Your task to perform on an android device: open app "Walmart Shopping & Grocery" Image 0: 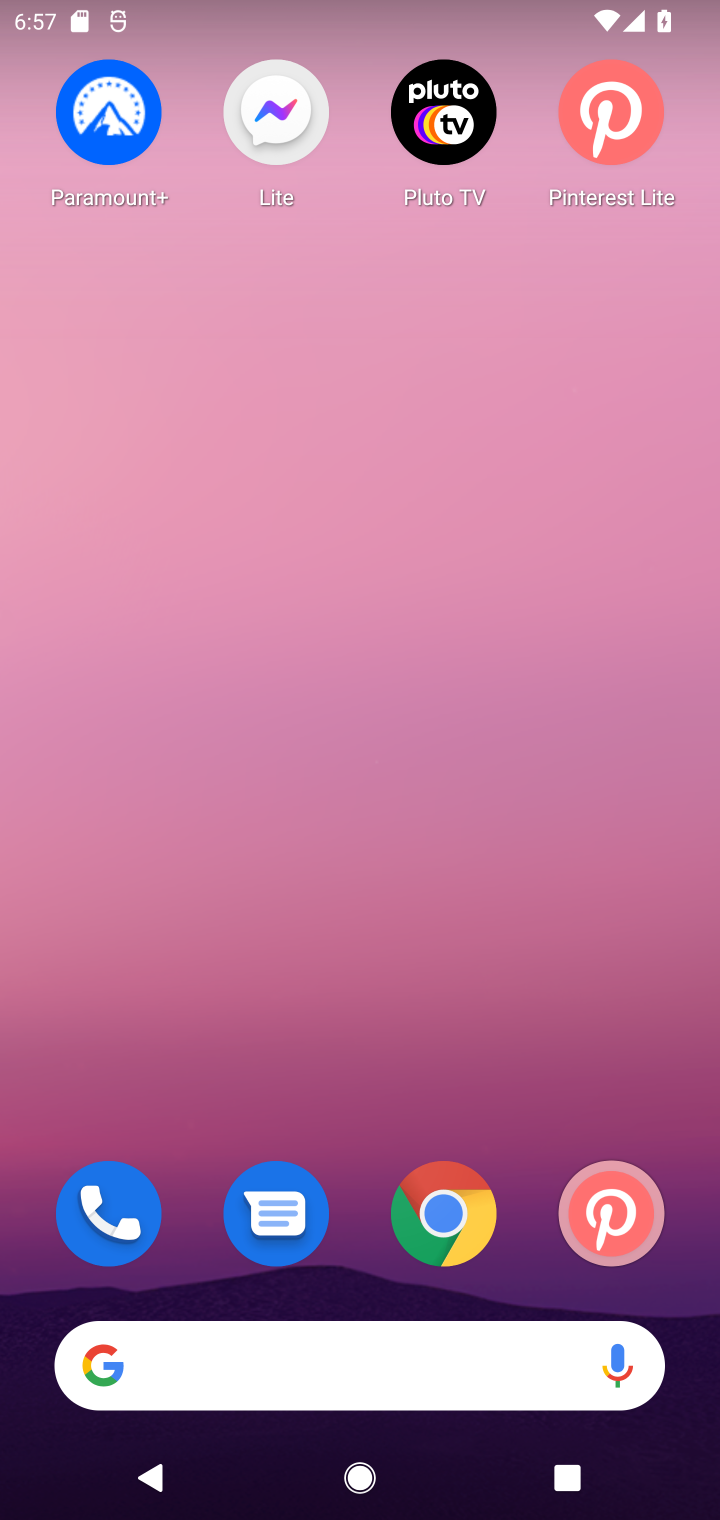
Step 0: drag from (326, 1182) to (300, 0)
Your task to perform on an android device: open app "Walmart Shopping & Grocery" Image 1: 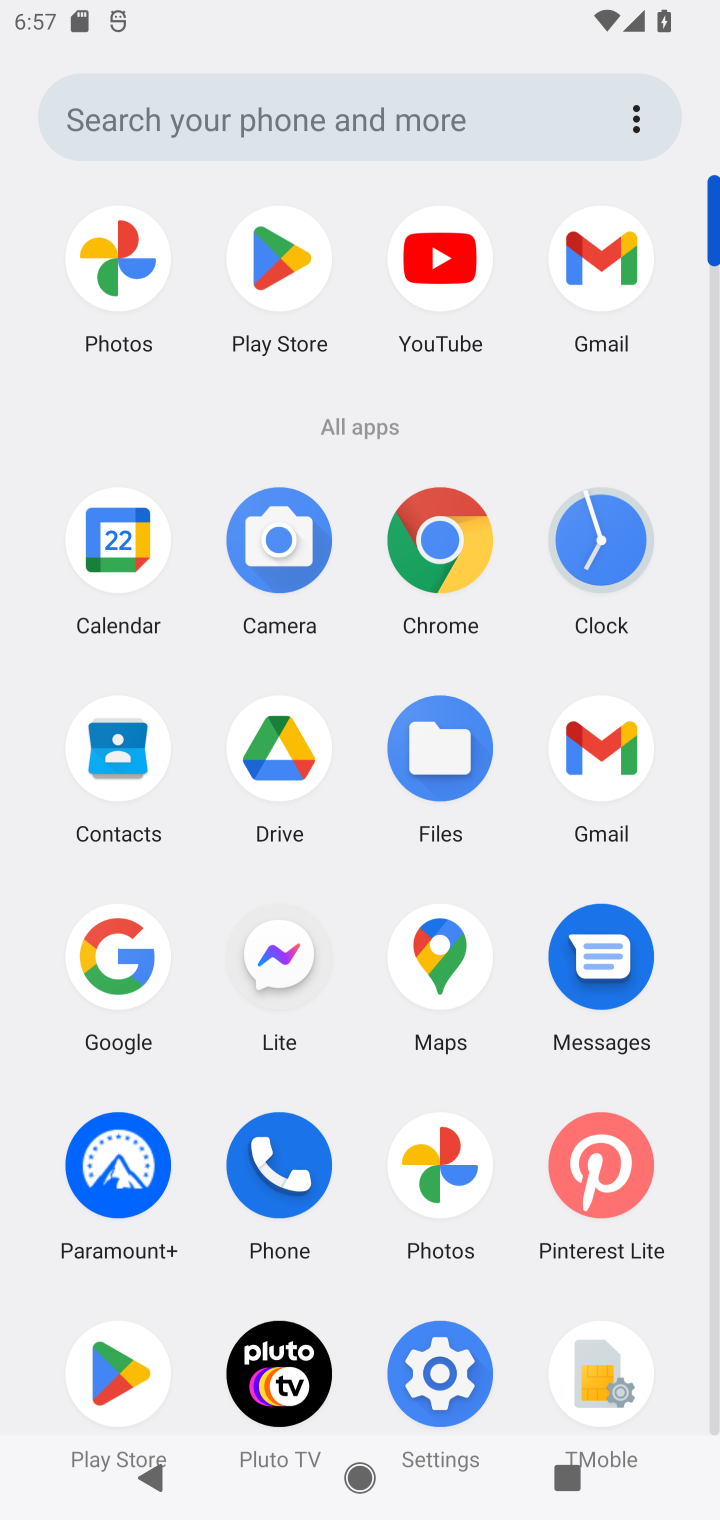
Step 1: click (285, 247)
Your task to perform on an android device: open app "Walmart Shopping & Grocery" Image 2: 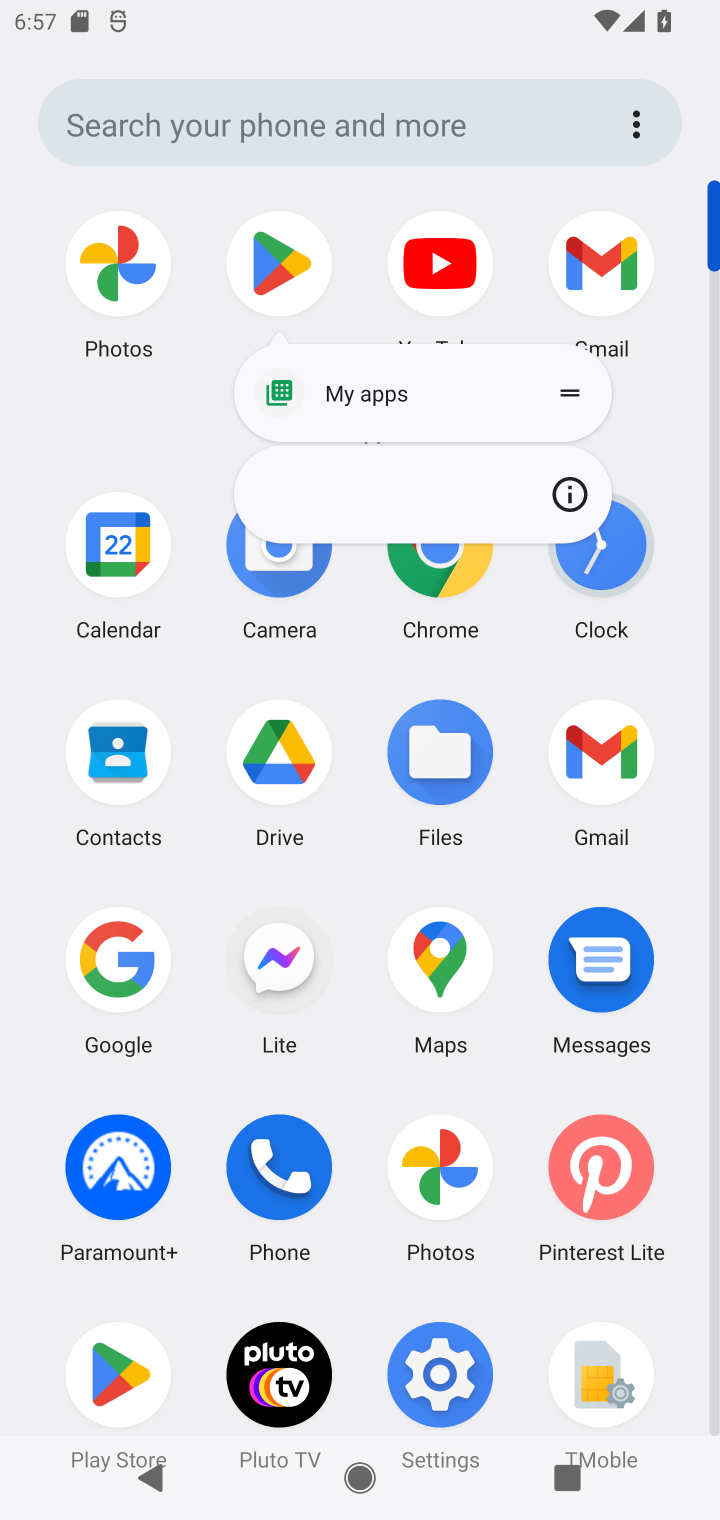
Step 2: click (104, 1361)
Your task to perform on an android device: open app "Walmart Shopping & Grocery" Image 3: 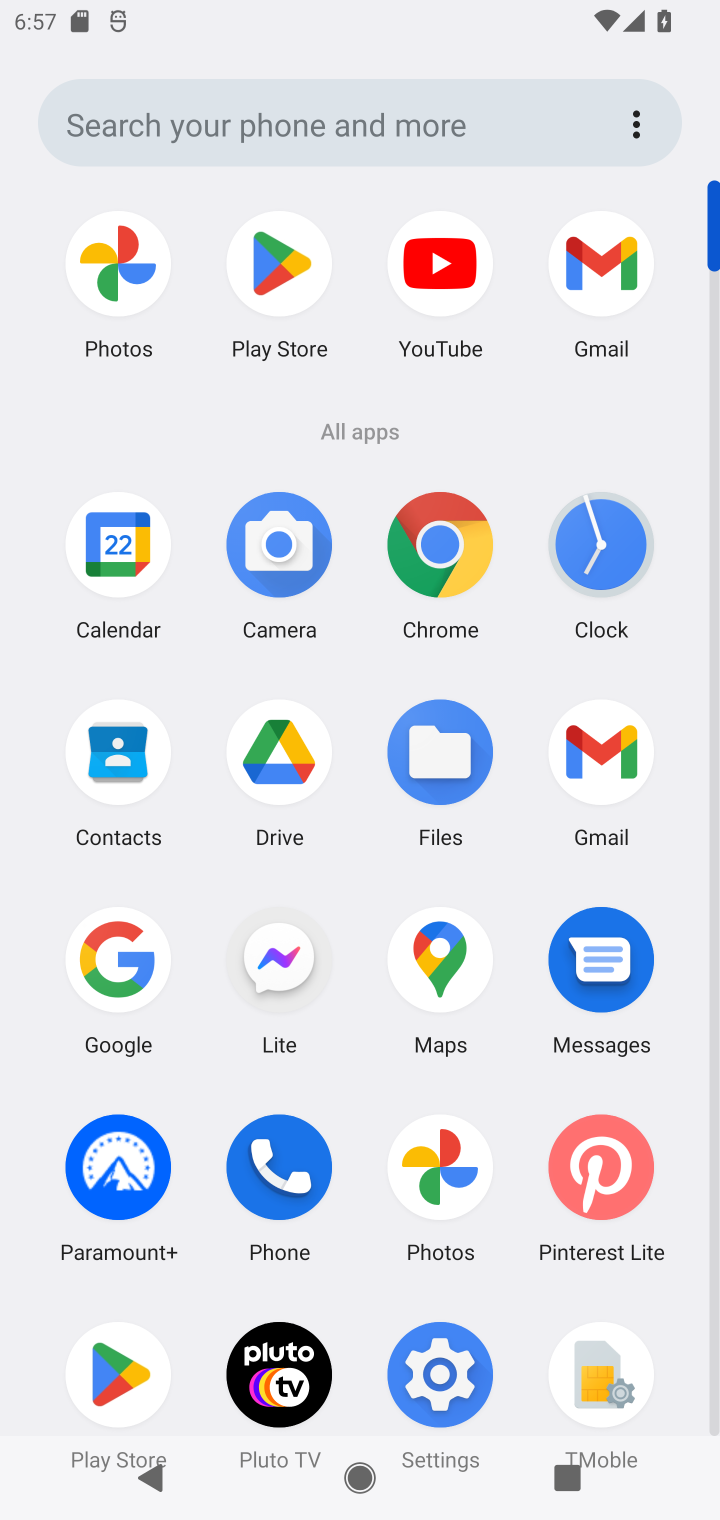
Step 3: click (111, 1362)
Your task to perform on an android device: open app "Walmart Shopping & Grocery" Image 4: 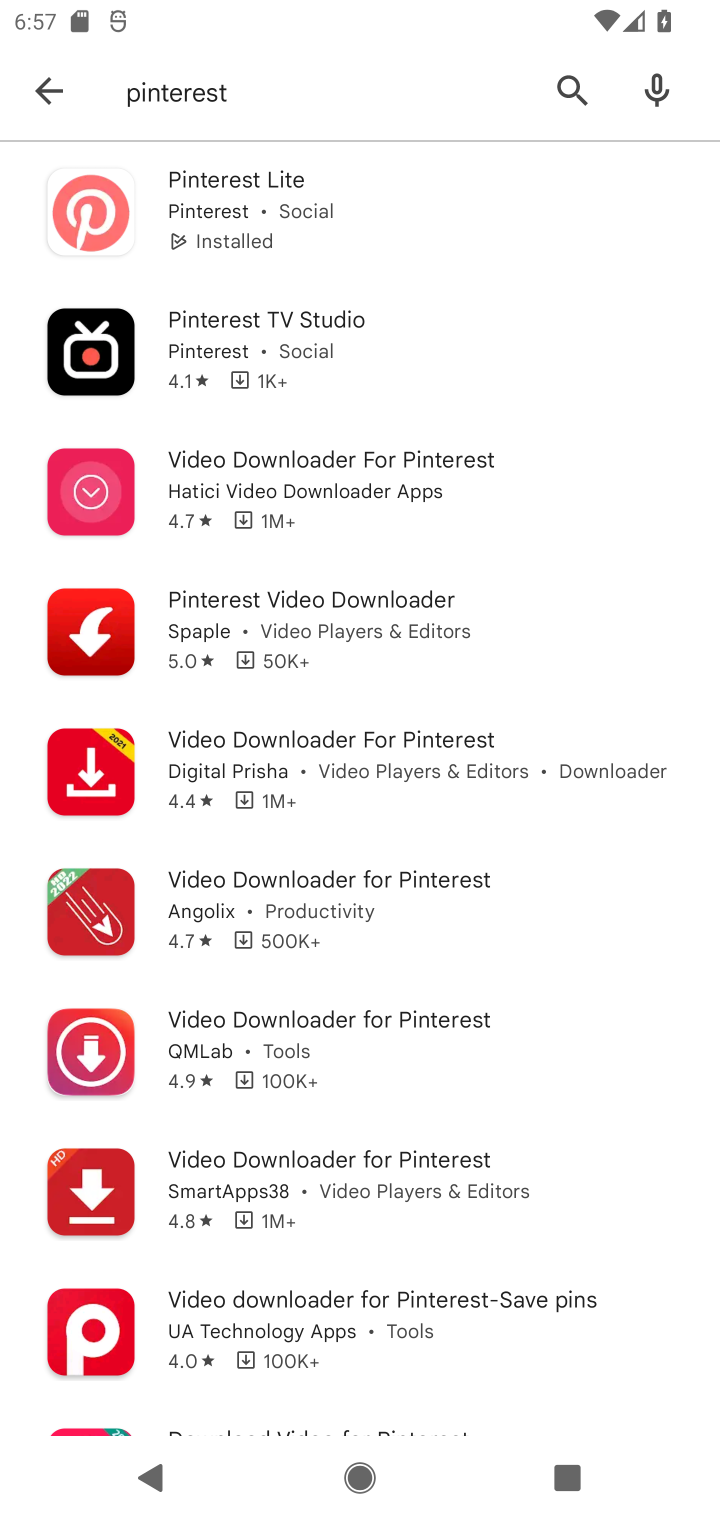
Step 4: click (572, 90)
Your task to perform on an android device: open app "Walmart Shopping & Grocery" Image 5: 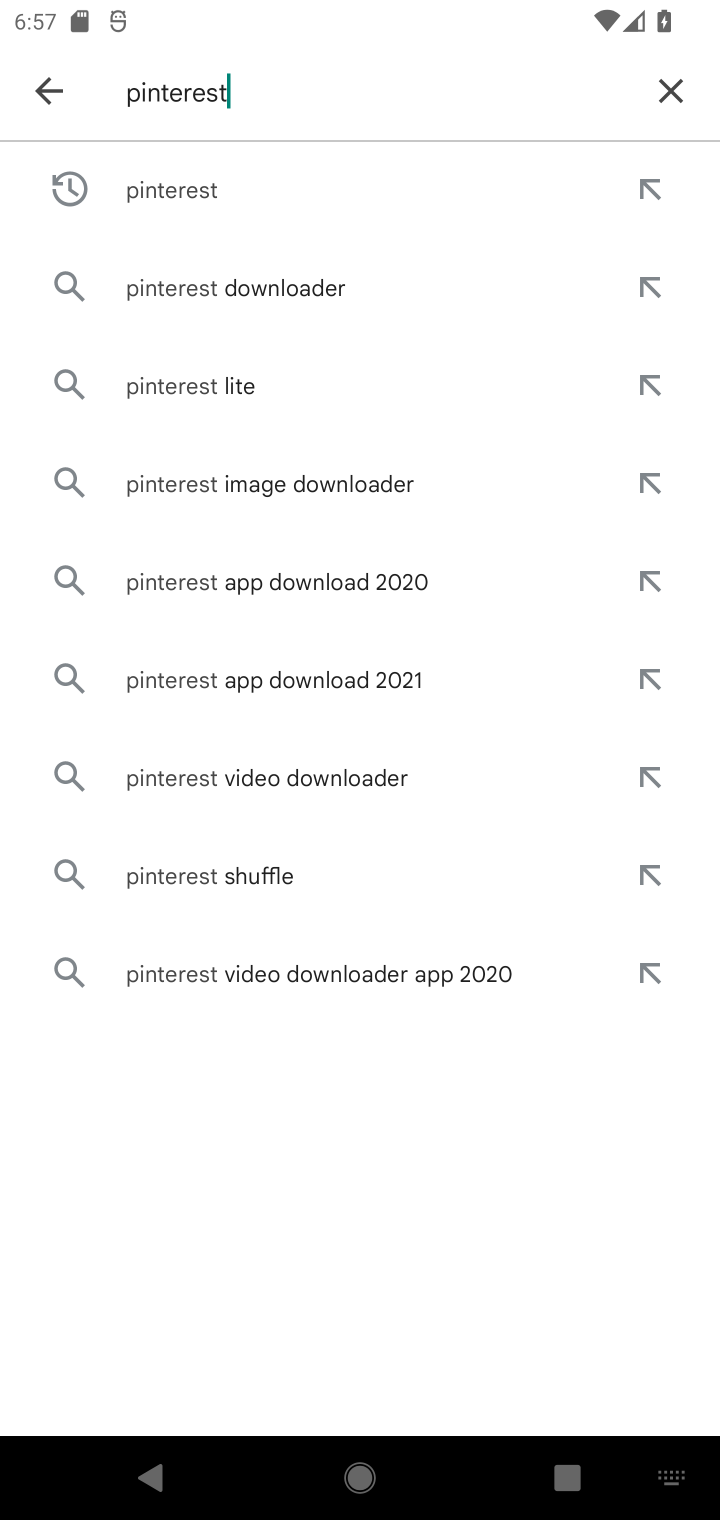
Step 5: click (680, 92)
Your task to perform on an android device: open app "Walmart Shopping & Grocery" Image 6: 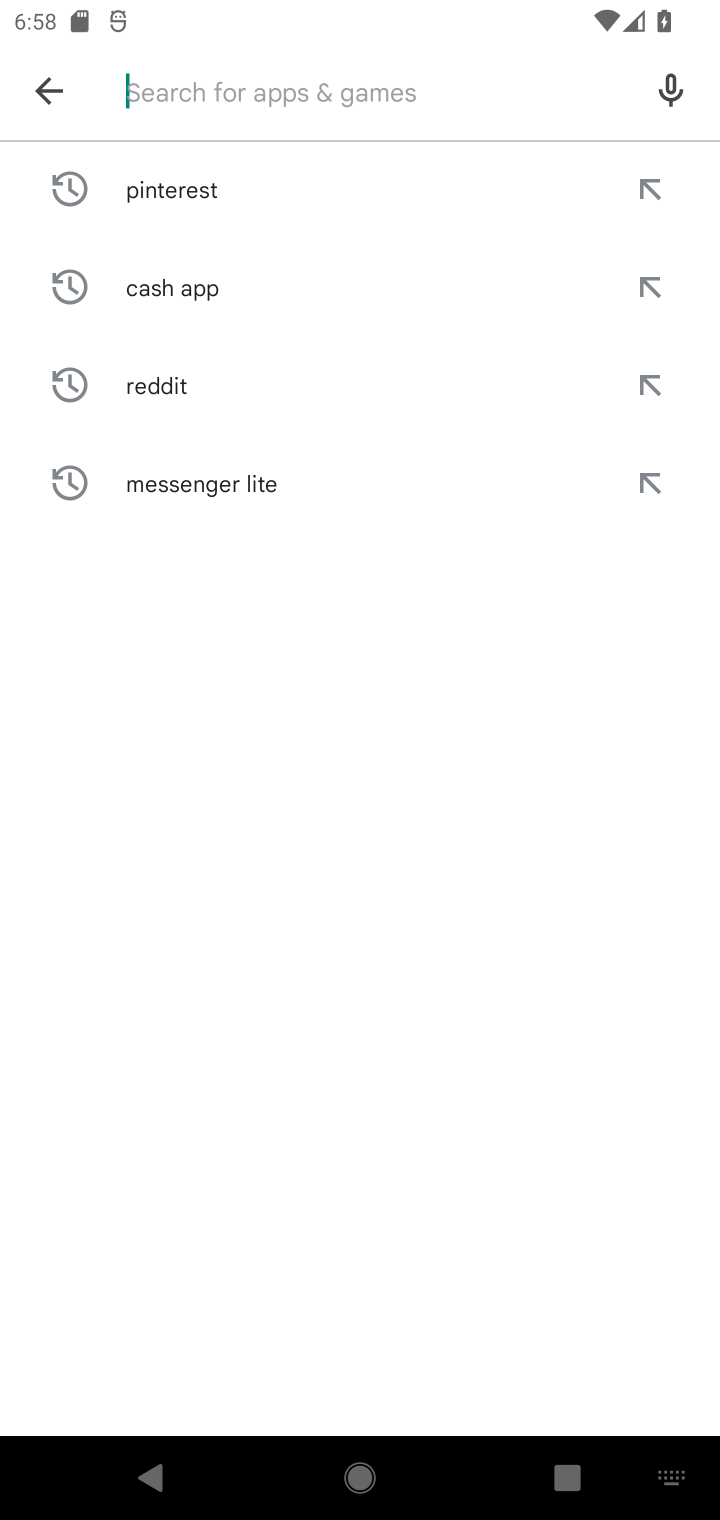
Step 6: type "Walmart Shopping & Grocery"
Your task to perform on an android device: open app "Walmart Shopping & Grocery" Image 7: 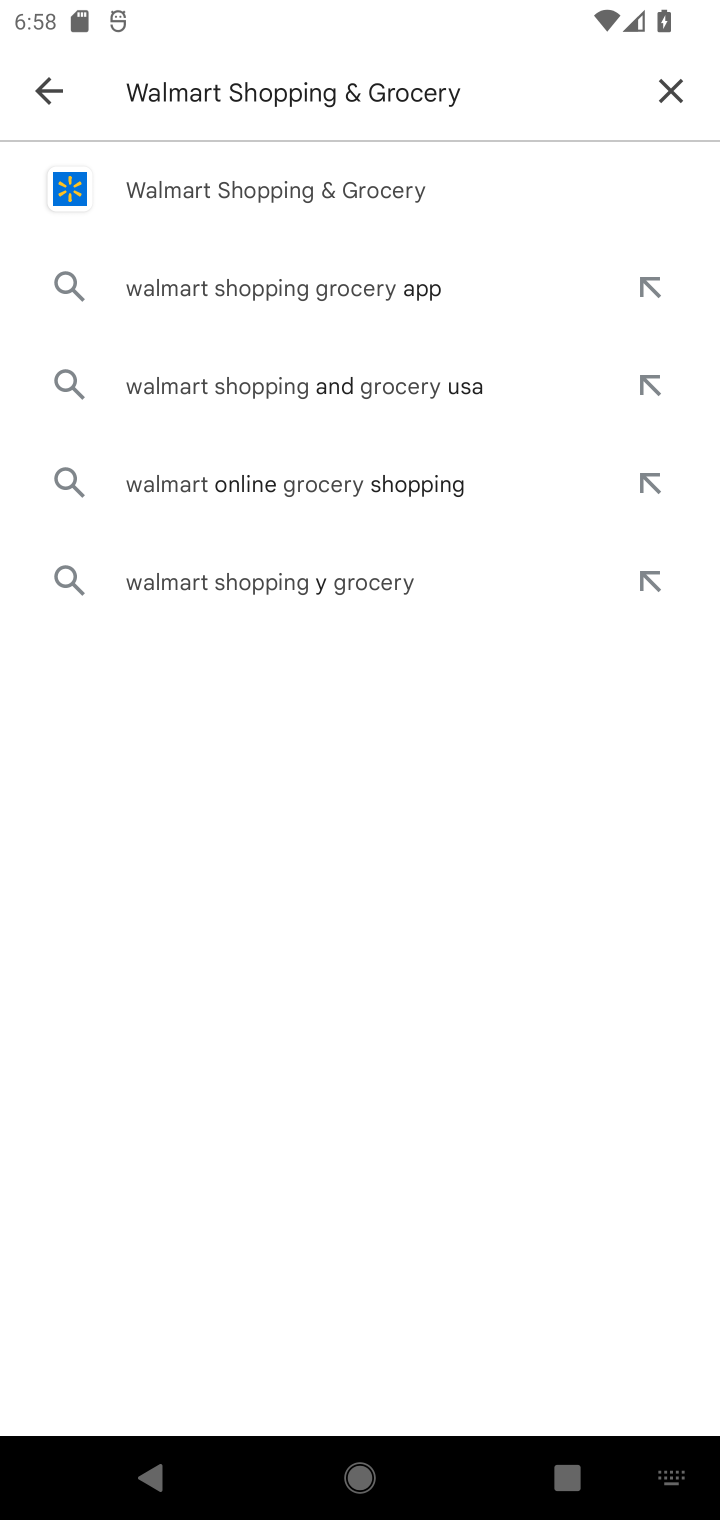
Step 7: click (143, 201)
Your task to perform on an android device: open app "Walmart Shopping & Grocery" Image 8: 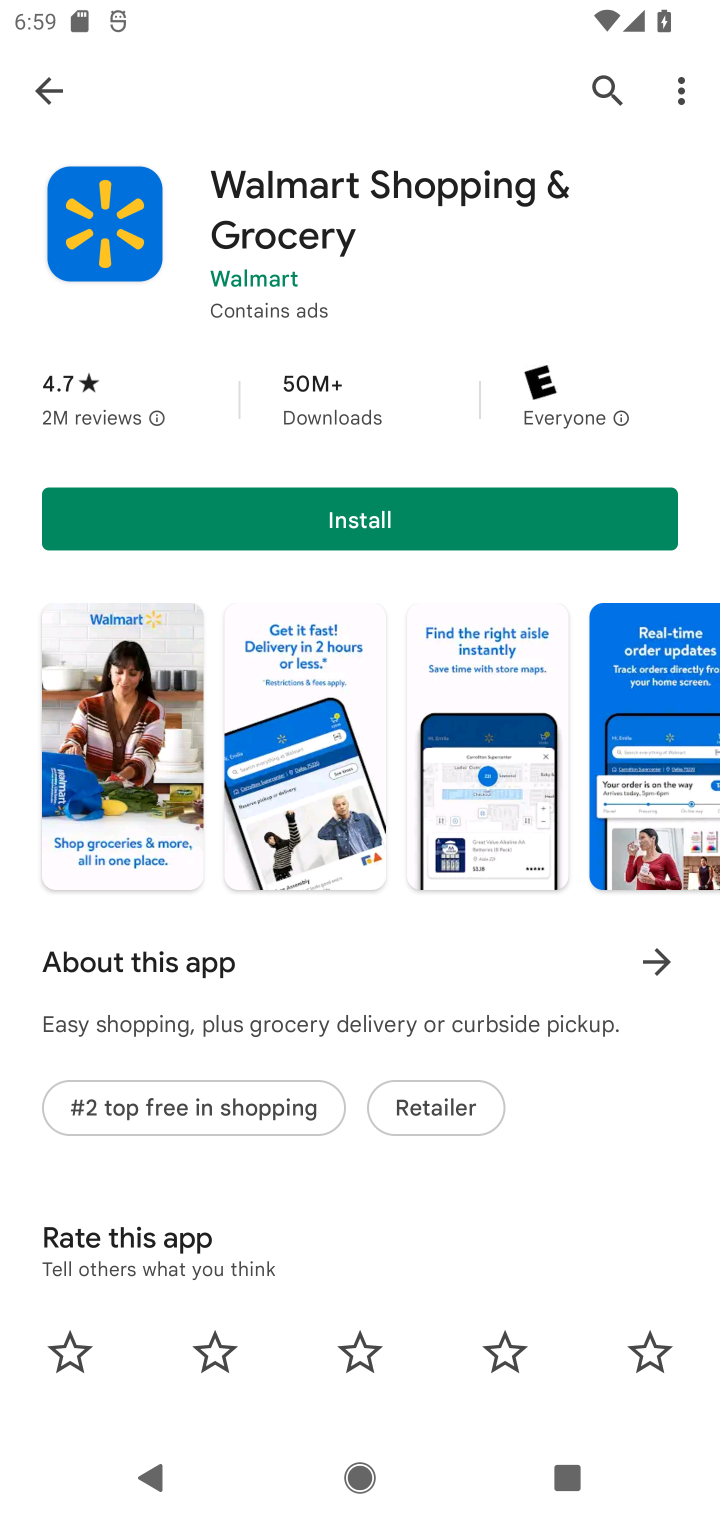
Step 8: task complete